Your task to perform on an android device: turn pop-ups off in chrome Image 0: 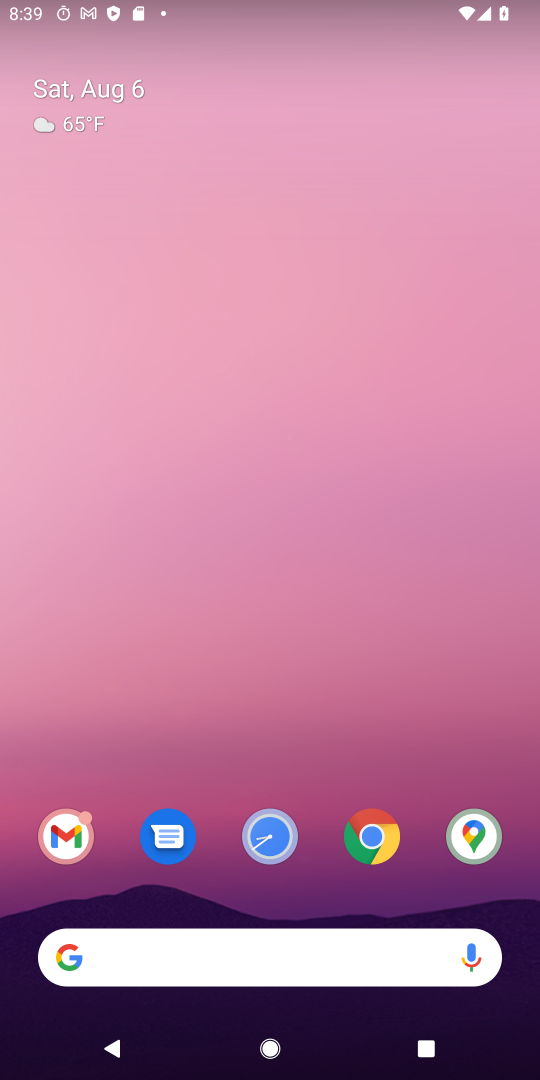
Step 0: drag from (431, 889) to (264, 89)
Your task to perform on an android device: turn pop-ups off in chrome Image 1: 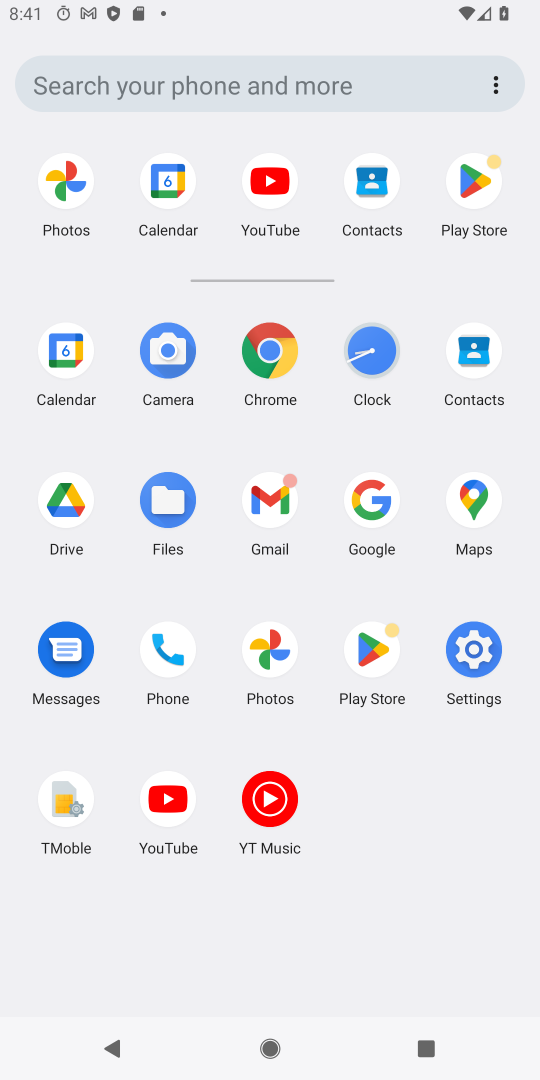
Step 1: click (263, 345)
Your task to perform on an android device: turn pop-ups off in chrome Image 2: 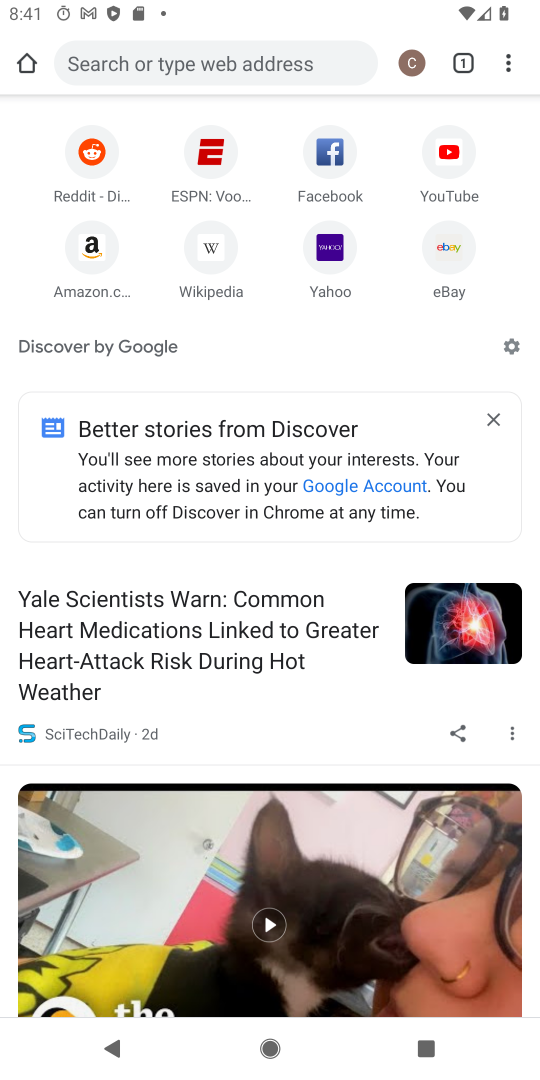
Step 2: click (508, 64)
Your task to perform on an android device: turn pop-ups off in chrome Image 3: 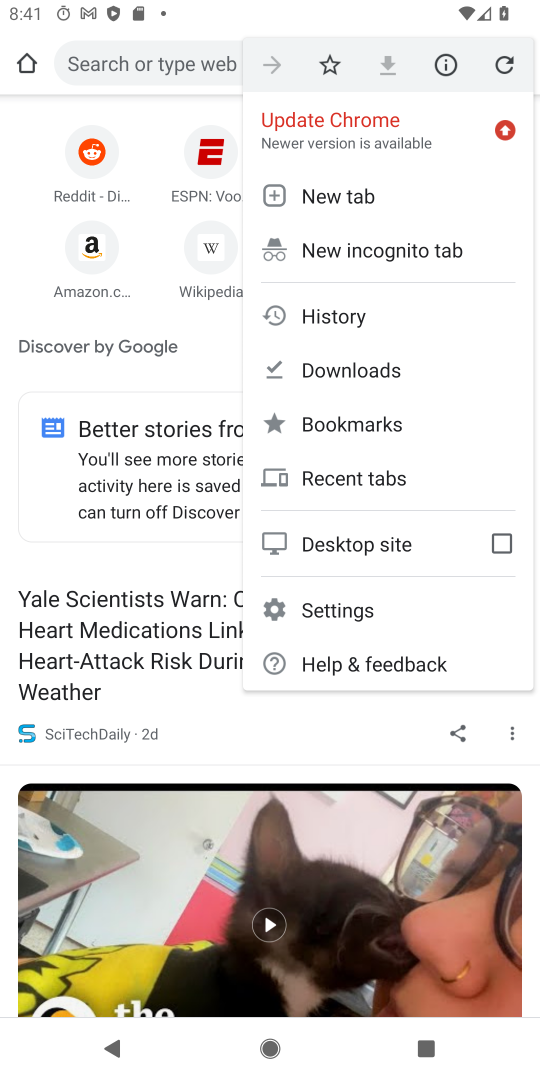
Step 3: click (346, 606)
Your task to perform on an android device: turn pop-ups off in chrome Image 4: 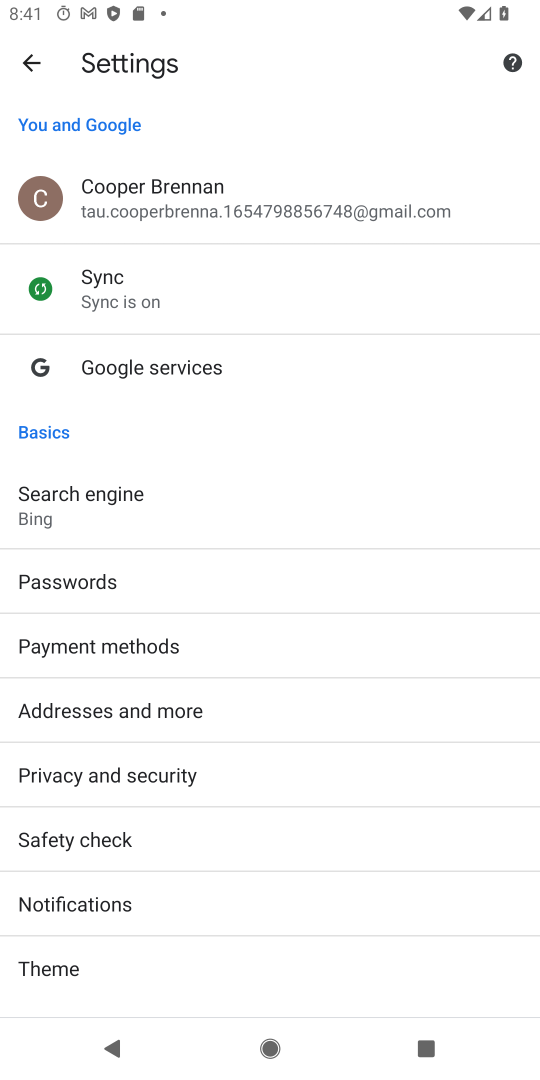
Step 4: drag from (241, 959) to (246, 272)
Your task to perform on an android device: turn pop-ups off in chrome Image 5: 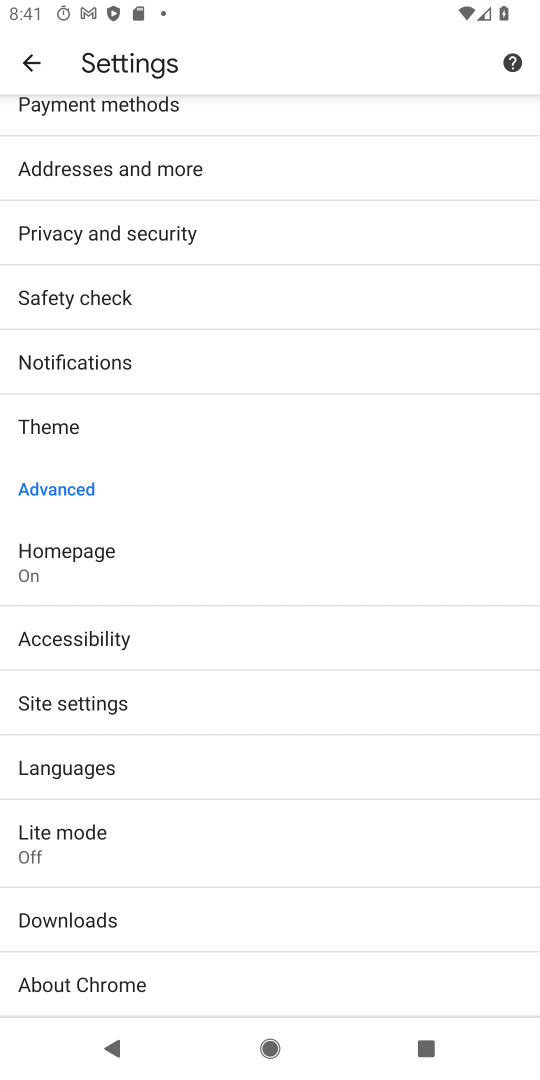
Step 5: click (130, 718)
Your task to perform on an android device: turn pop-ups off in chrome Image 6: 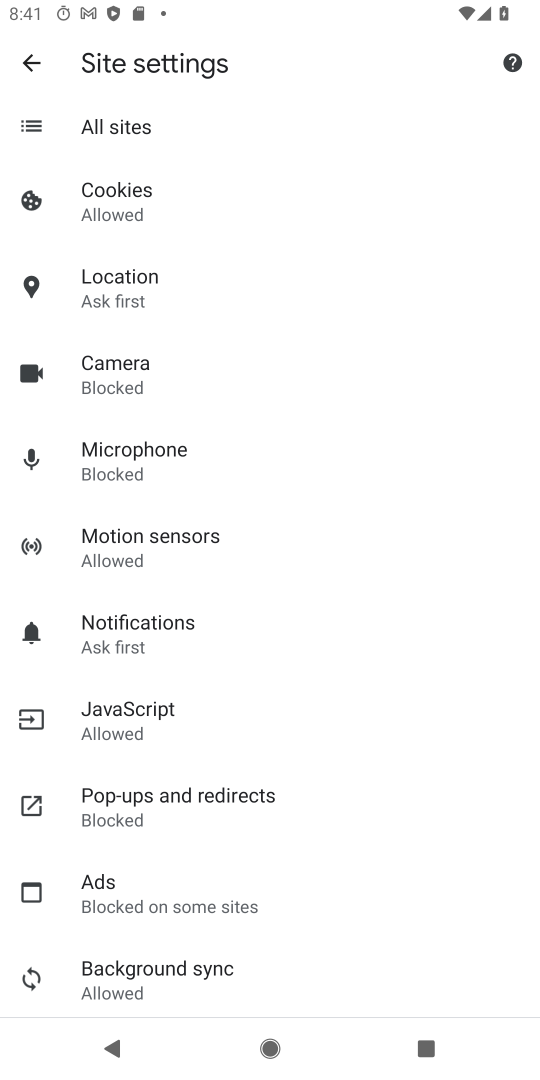
Step 6: click (151, 825)
Your task to perform on an android device: turn pop-ups off in chrome Image 7: 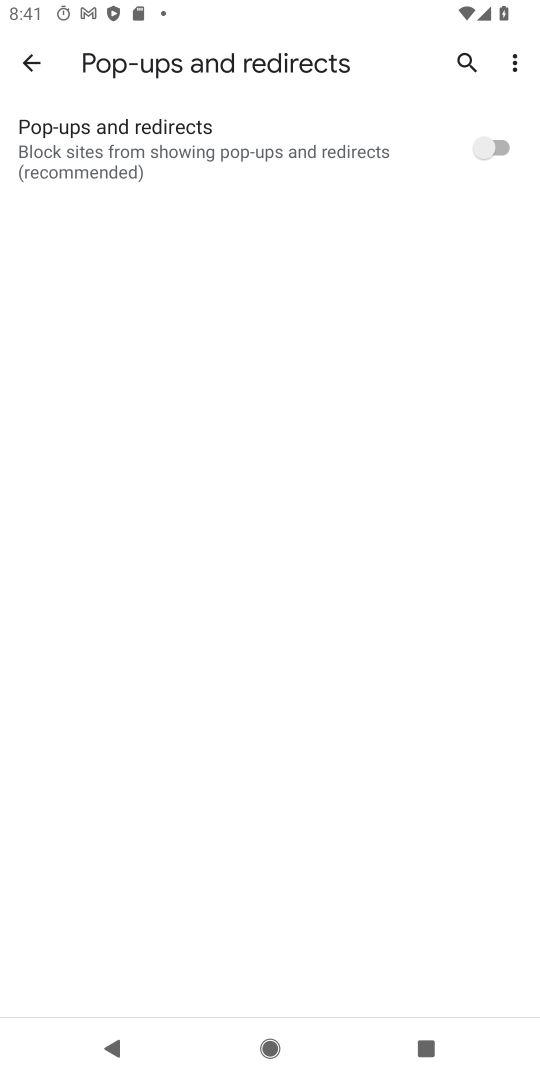
Step 7: task complete